Your task to perform on an android device: Open calendar and show me the second week of next month Image 0: 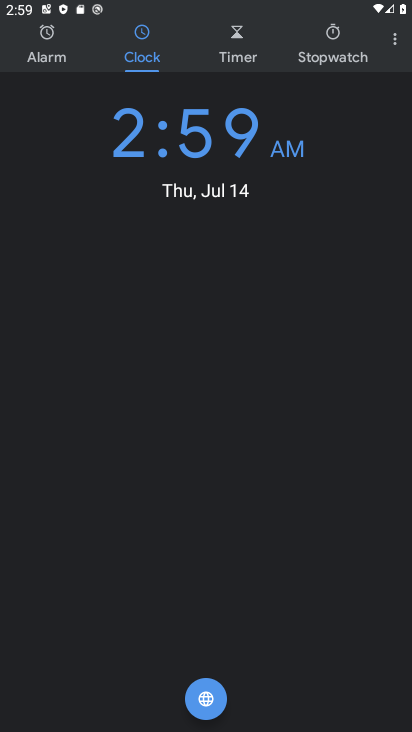
Step 0: drag from (255, 656) to (255, 336)
Your task to perform on an android device: Open calendar and show me the second week of next month Image 1: 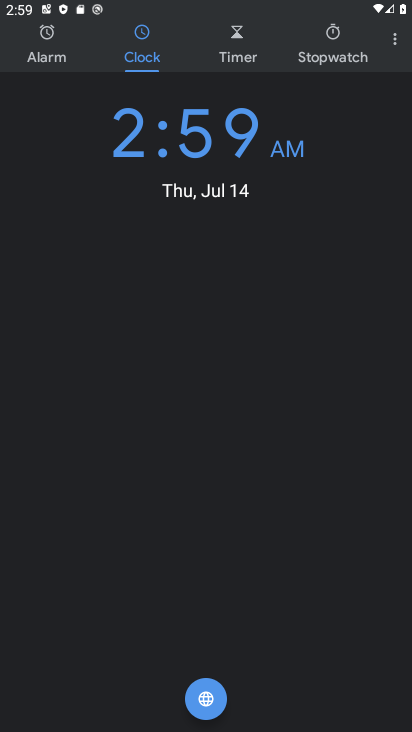
Step 1: press home button
Your task to perform on an android device: Open calendar and show me the second week of next month Image 2: 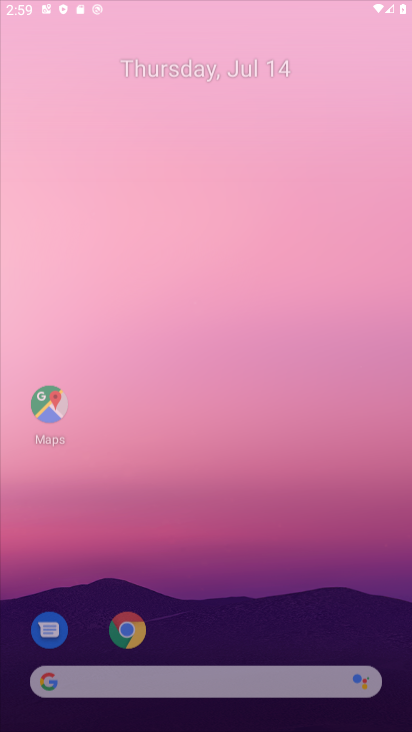
Step 2: drag from (147, 574) to (243, 78)
Your task to perform on an android device: Open calendar and show me the second week of next month Image 3: 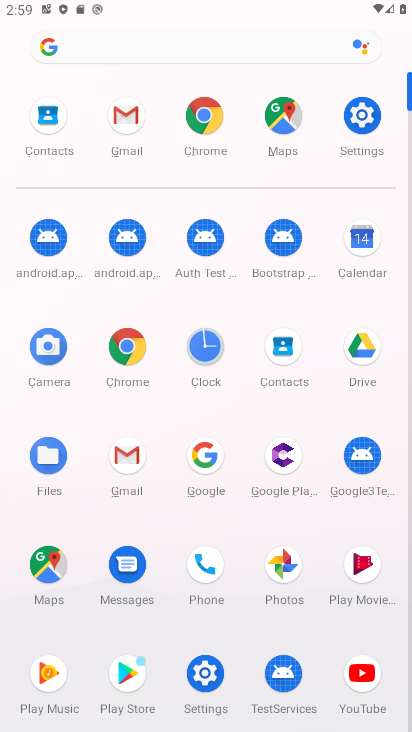
Step 3: click (353, 237)
Your task to perform on an android device: Open calendar and show me the second week of next month Image 4: 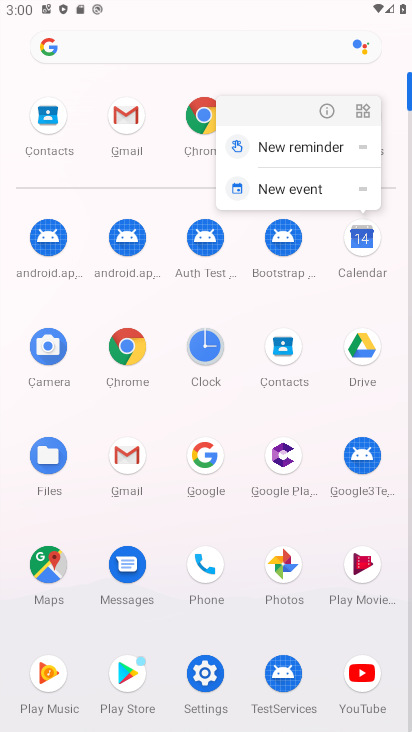
Step 4: click (325, 104)
Your task to perform on an android device: Open calendar and show me the second week of next month Image 5: 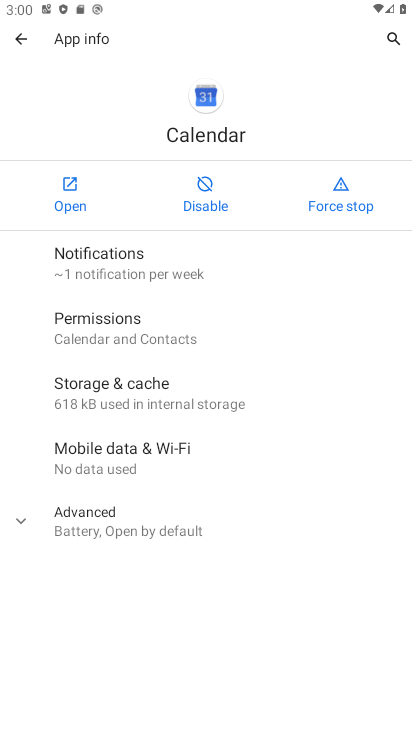
Step 5: click (69, 198)
Your task to perform on an android device: Open calendar and show me the second week of next month Image 6: 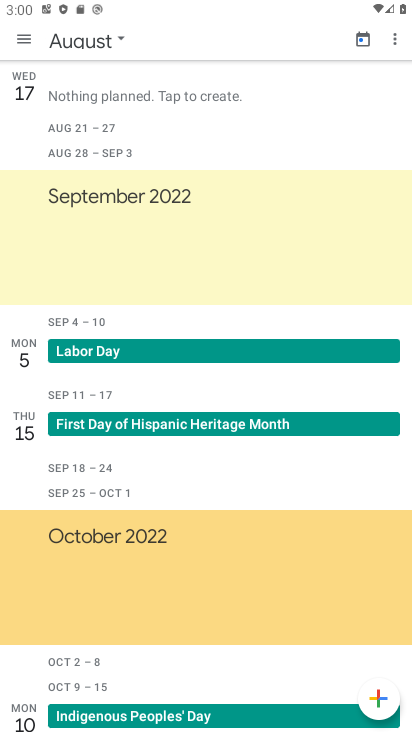
Step 6: drag from (207, 673) to (260, 374)
Your task to perform on an android device: Open calendar and show me the second week of next month Image 7: 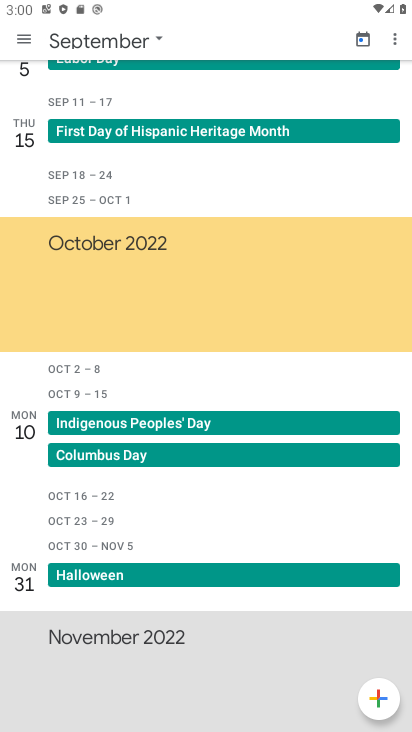
Step 7: click (364, 45)
Your task to perform on an android device: Open calendar and show me the second week of next month Image 8: 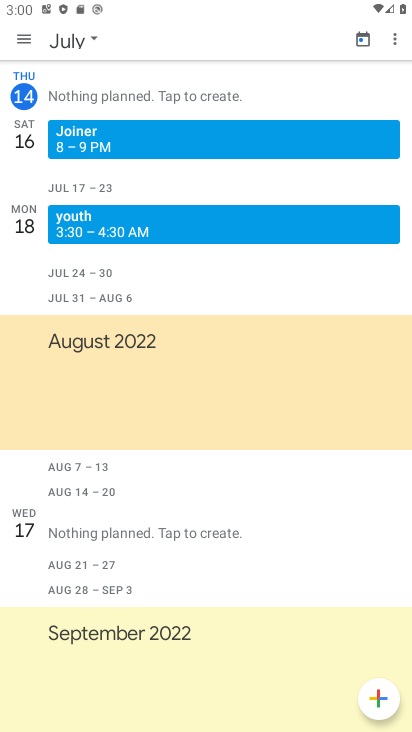
Step 8: drag from (161, 613) to (257, 335)
Your task to perform on an android device: Open calendar and show me the second week of next month Image 9: 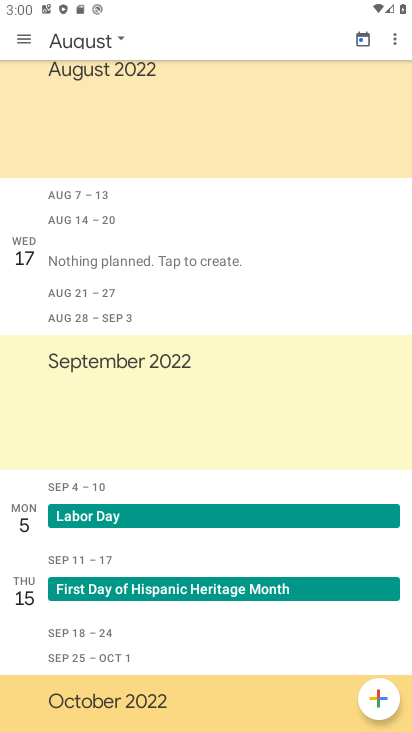
Step 9: drag from (245, 290) to (267, 695)
Your task to perform on an android device: Open calendar and show me the second week of next month Image 10: 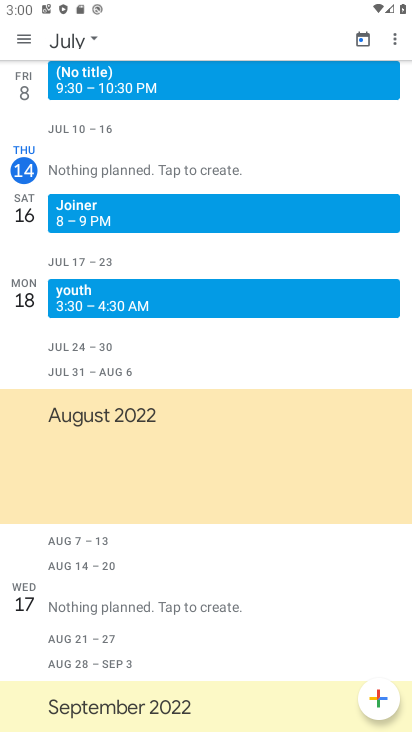
Step 10: click (362, 43)
Your task to perform on an android device: Open calendar and show me the second week of next month Image 11: 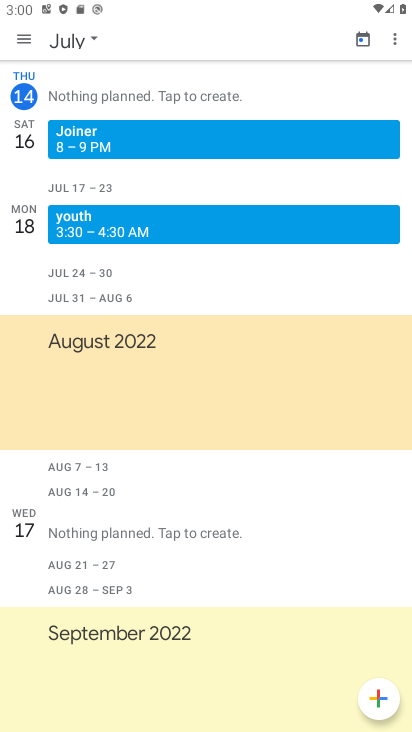
Step 11: click (88, 34)
Your task to perform on an android device: Open calendar and show me the second week of next month Image 12: 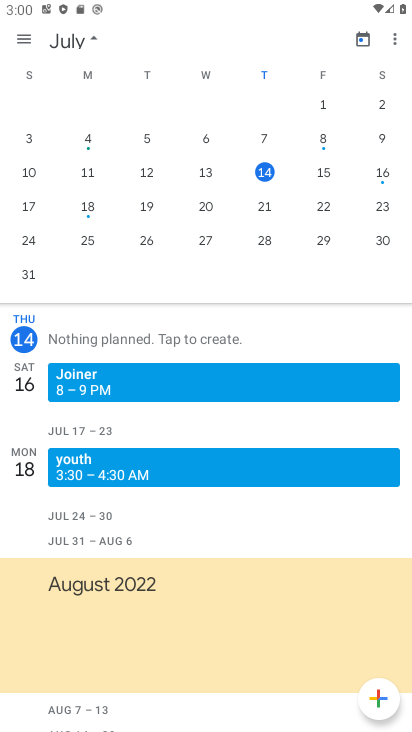
Step 12: drag from (344, 209) to (10, 172)
Your task to perform on an android device: Open calendar and show me the second week of next month Image 13: 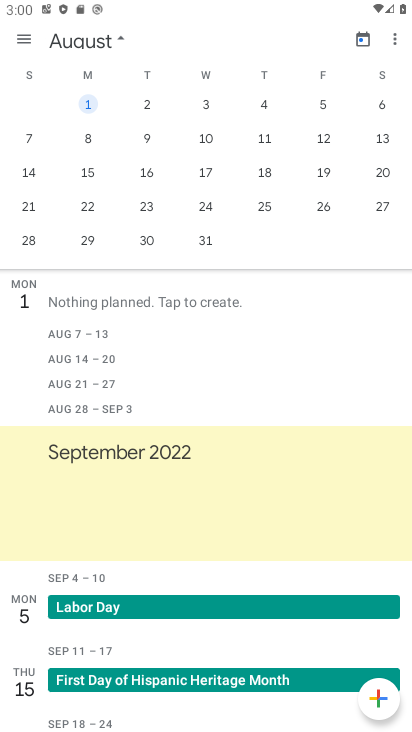
Step 13: click (328, 169)
Your task to perform on an android device: Open calendar and show me the second week of next month Image 14: 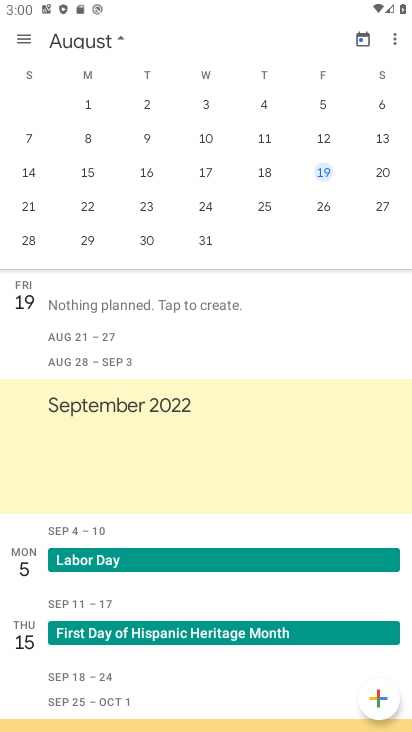
Step 14: task complete